Your task to perform on an android device: all mails in gmail Image 0: 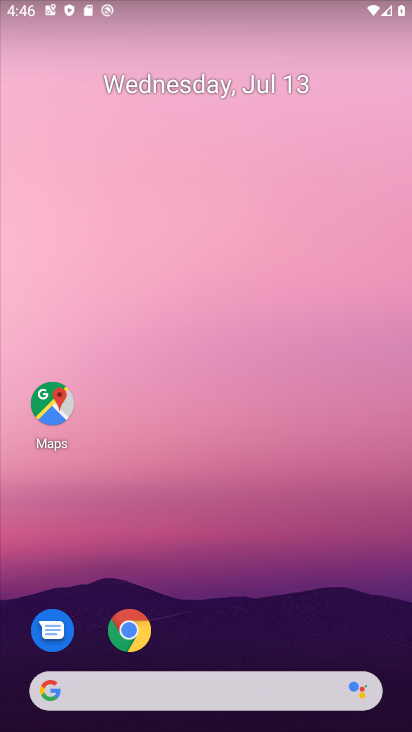
Step 0: drag from (211, 604) to (295, 93)
Your task to perform on an android device: all mails in gmail Image 1: 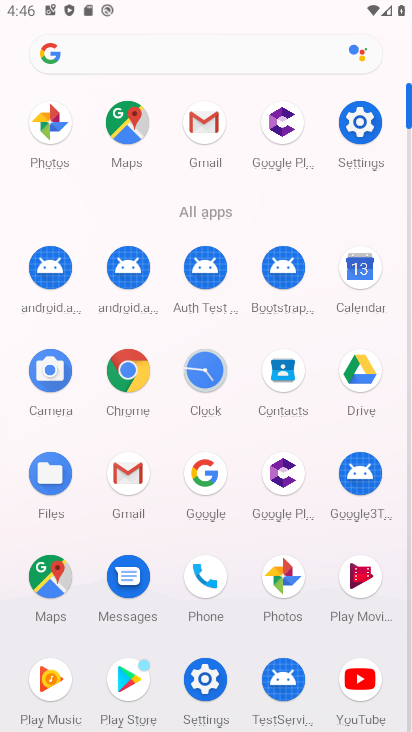
Step 1: click (125, 495)
Your task to perform on an android device: all mails in gmail Image 2: 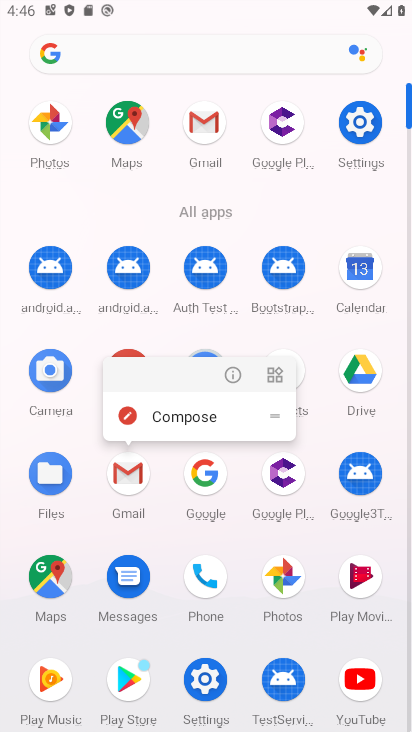
Step 2: click (121, 490)
Your task to perform on an android device: all mails in gmail Image 3: 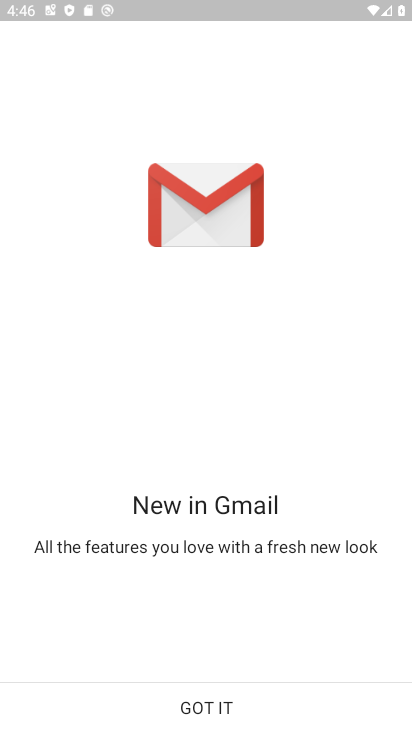
Step 3: click (210, 699)
Your task to perform on an android device: all mails in gmail Image 4: 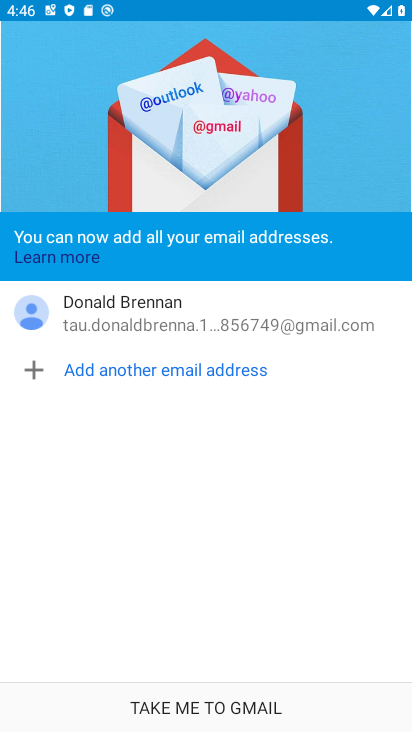
Step 4: click (220, 704)
Your task to perform on an android device: all mails in gmail Image 5: 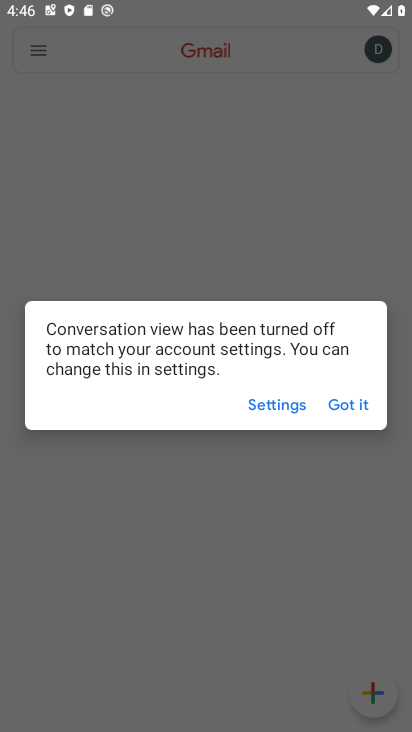
Step 5: click (349, 417)
Your task to perform on an android device: all mails in gmail Image 6: 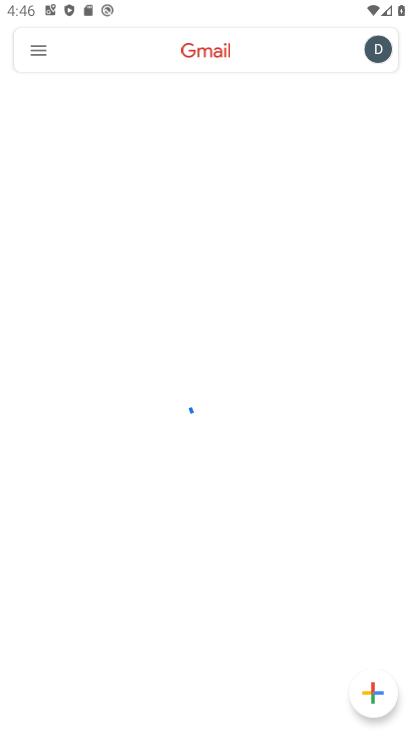
Step 6: click (34, 64)
Your task to perform on an android device: all mails in gmail Image 7: 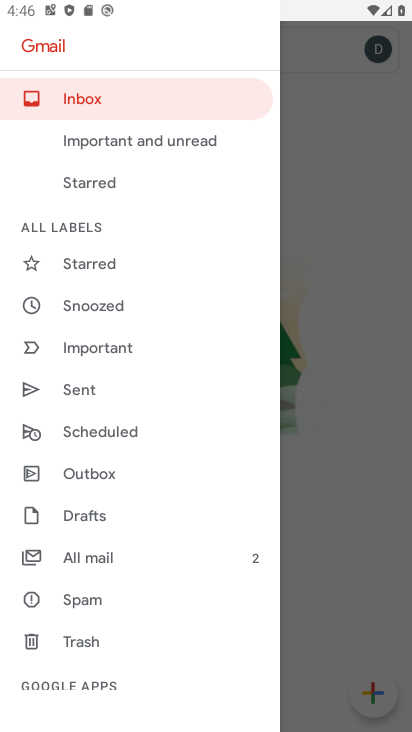
Step 7: click (119, 551)
Your task to perform on an android device: all mails in gmail Image 8: 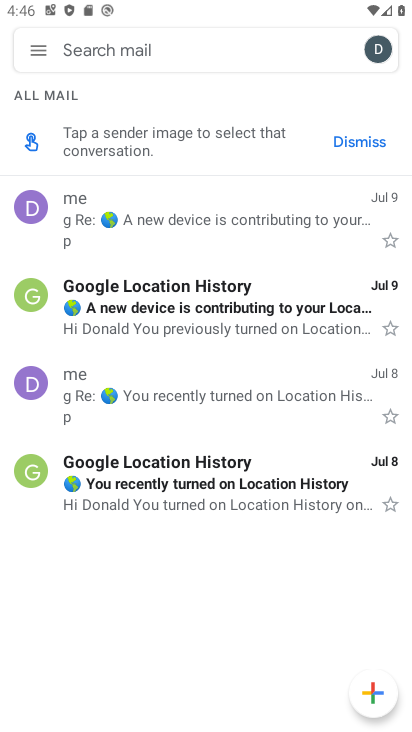
Step 8: task complete